Your task to perform on an android device: delete location history Image 0: 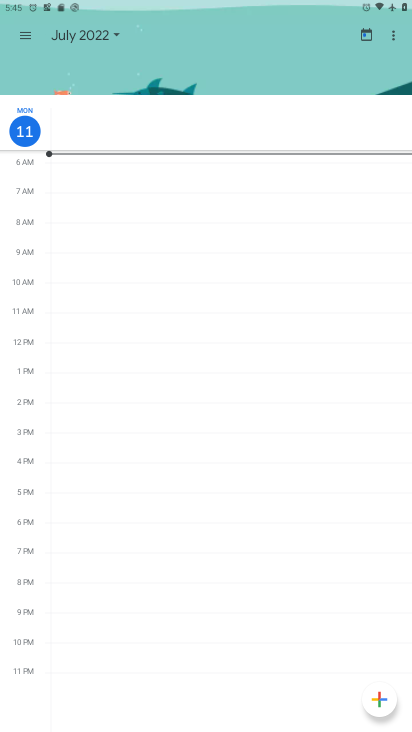
Step 0: press home button
Your task to perform on an android device: delete location history Image 1: 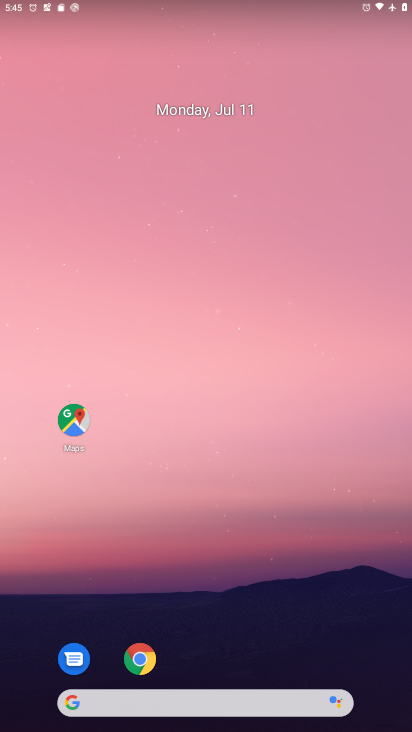
Step 1: click (73, 422)
Your task to perform on an android device: delete location history Image 2: 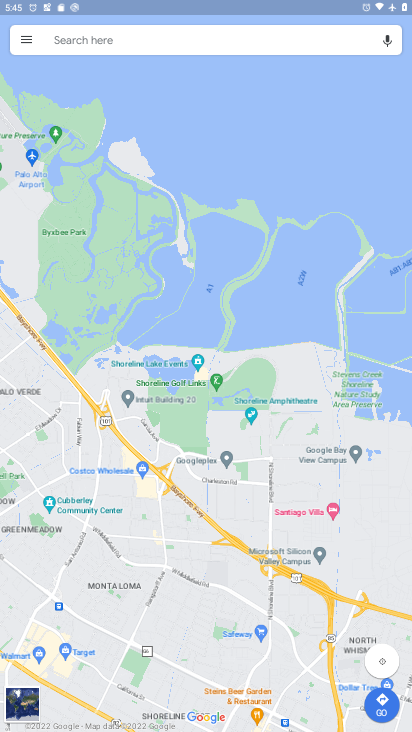
Step 2: click (26, 37)
Your task to perform on an android device: delete location history Image 3: 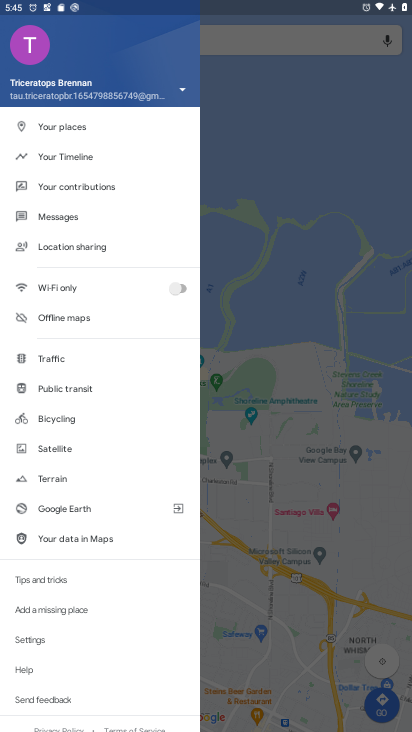
Step 3: click (41, 644)
Your task to perform on an android device: delete location history Image 4: 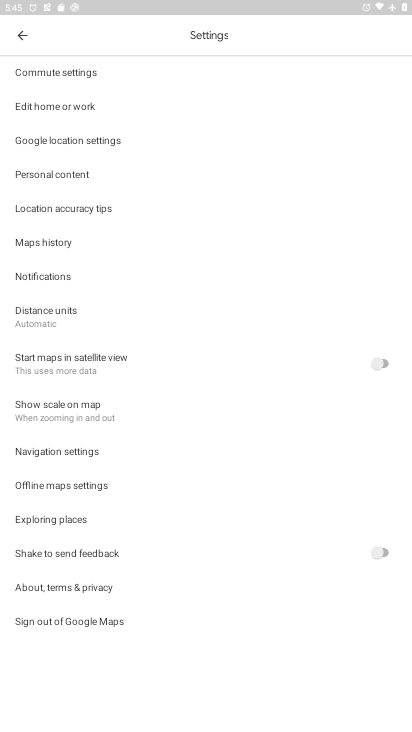
Step 4: click (63, 180)
Your task to perform on an android device: delete location history Image 5: 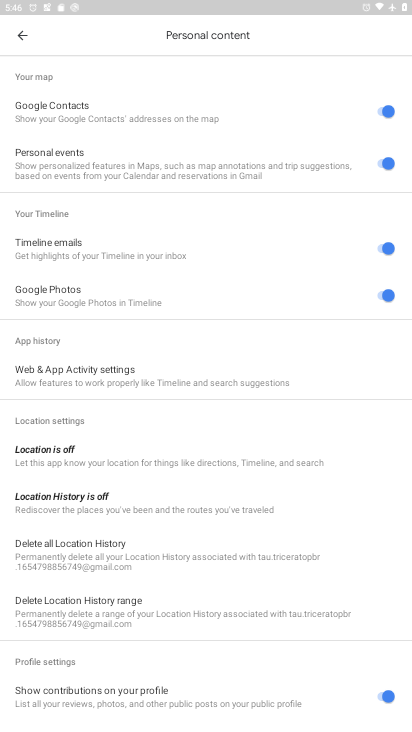
Step 5: click (54, 553)
Your task to perform on an android device: delete location history Image 6: 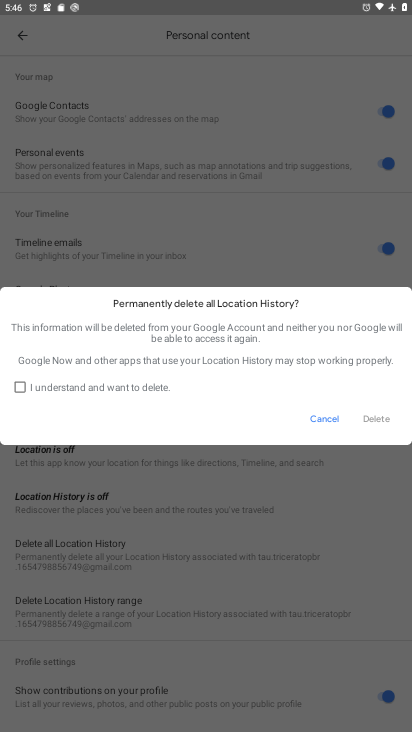
Step 6: click (59, 385)
Your task to perform on an android device: delete location history Image 7: 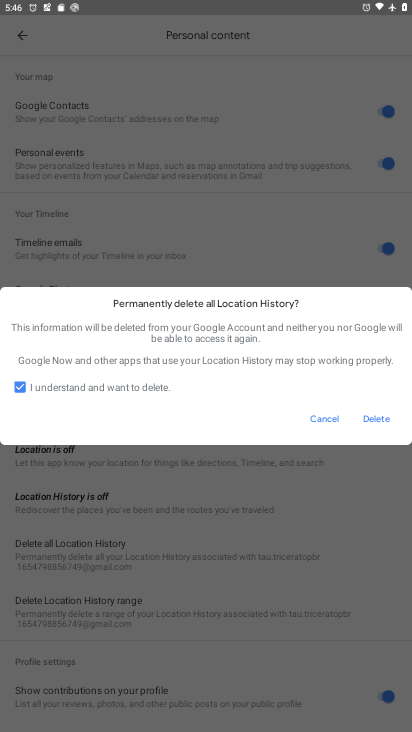
Step 7: click (382, 423)
Your task to perform on an android device: delete location history Image 8: 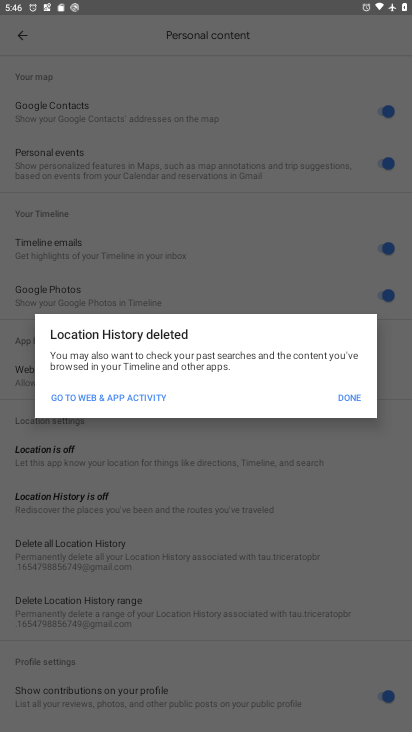
Step 8: click (343, 397)
Your task to perform on an android device: delete location history Image 9: 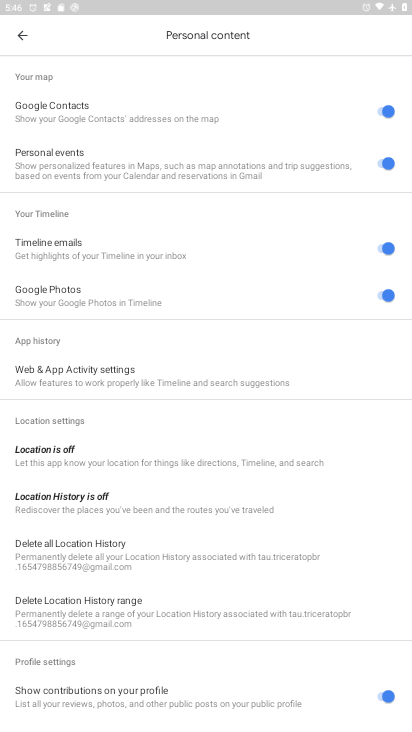
Step 9: task complete